Your task to perform on an android device: toggle translation in the chrome app Image 0: 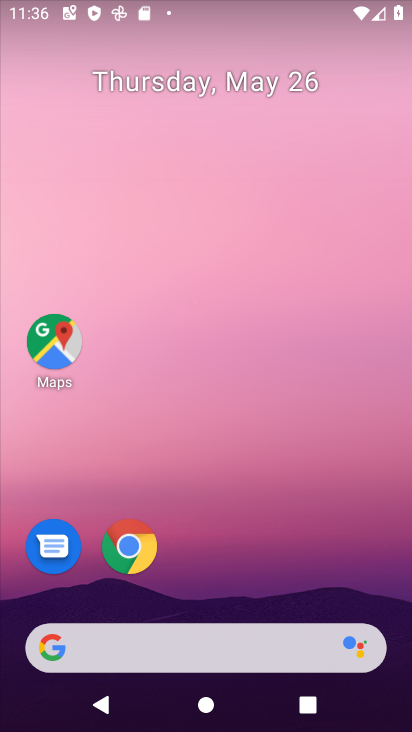
Step 0: click (130, 548)
Your task to perform on an android device: toggle translation in the chrome app Image 1: 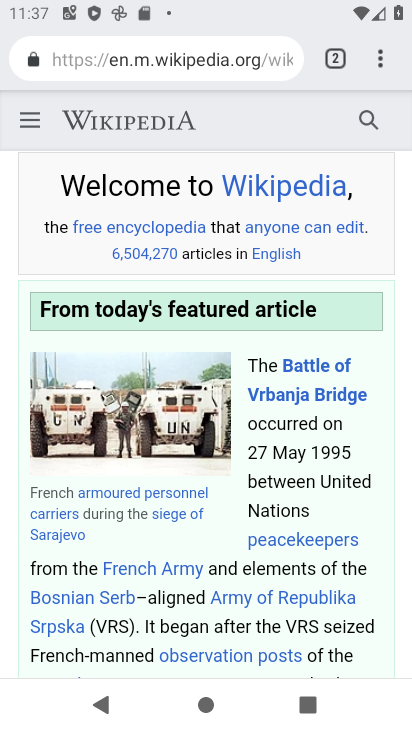
Step 1: click (372, 57)
Your task to perform on an android device: toggle translation in the chrome app Image 2: 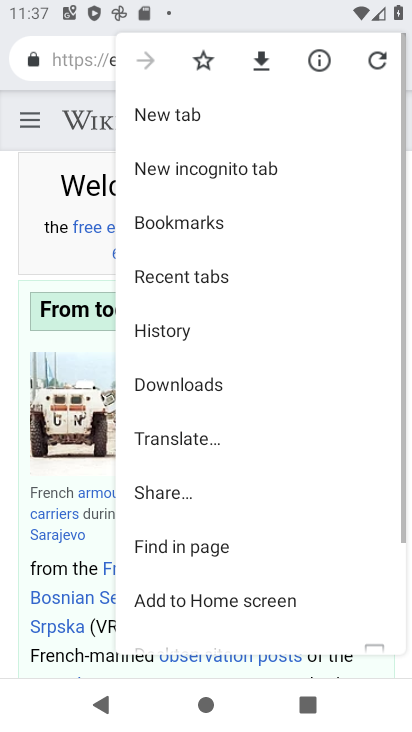
Step 2: drag from (217, 557) to (275, 156)
Your task to perform on an android device: toggle translation in the chrome app Image 3: 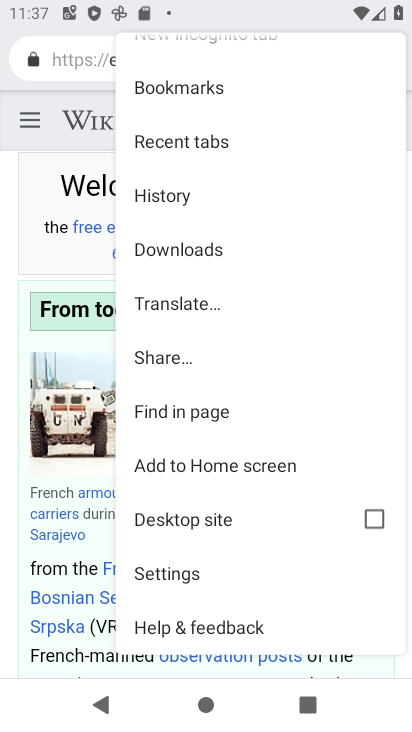
Step 3: click (176, 570)
Your task to perform on an android device: toggle translation in the chrome app Image 4: 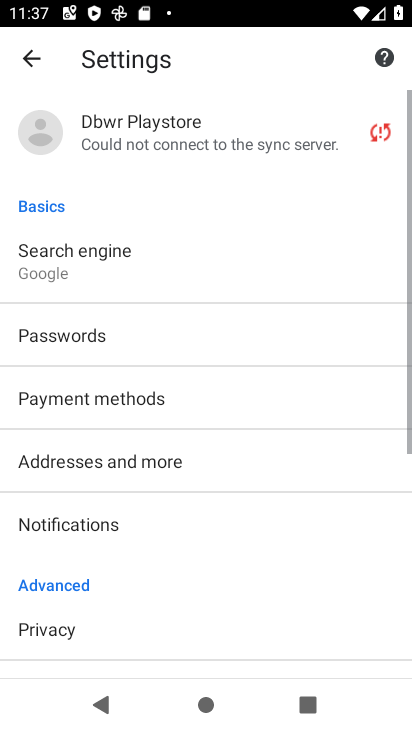
Step 4: drag from (210, 585) to (259, 145)
Your task to perform on an android device: toggle translation in the chrome app Image 5: 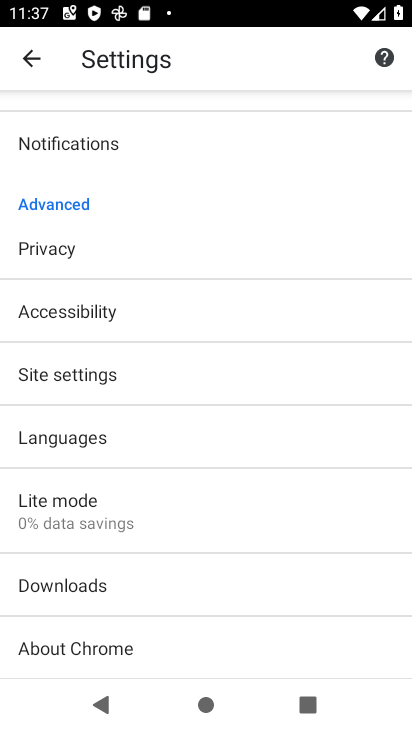
Step 5: click (110, 434)
Your task to perform on an android device: toggle translation in the chrome app Image 6: 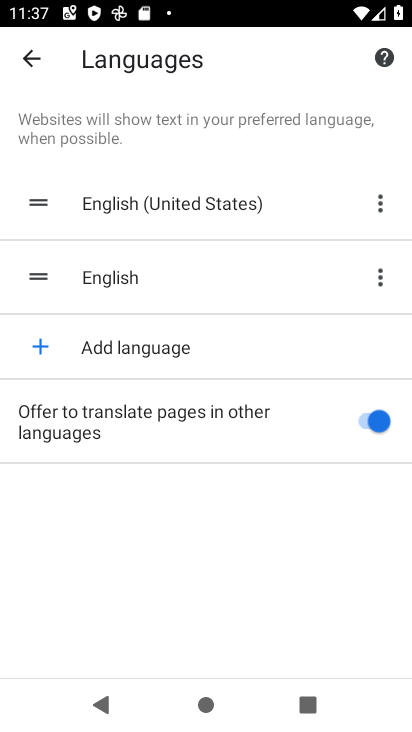
Step 6: click (377, 416)
Your task to perform on an android device: toggle translation in the chrome app Image 7: 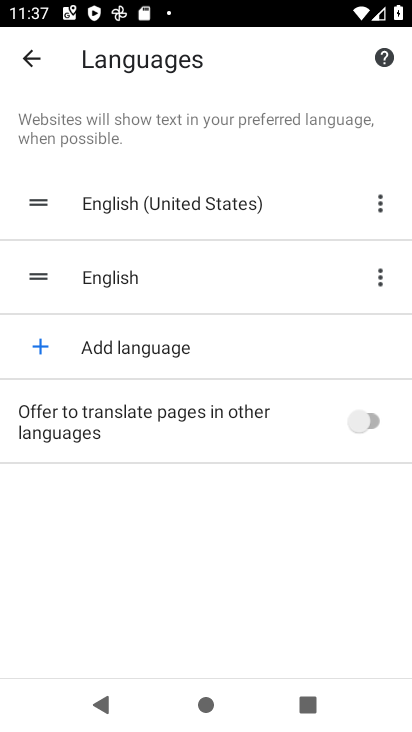
Step 7: task complete